Your task to perform on an android device: turn off sleep mode Image 0: 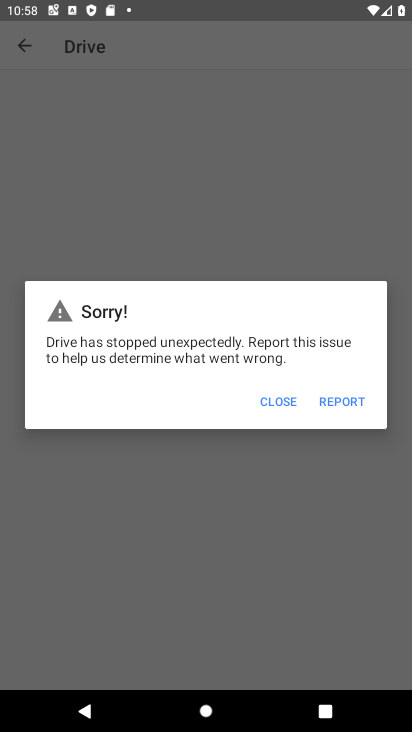
Step 0: press home button
Your task to perform on an android device: turn off sleep mode Image 1: 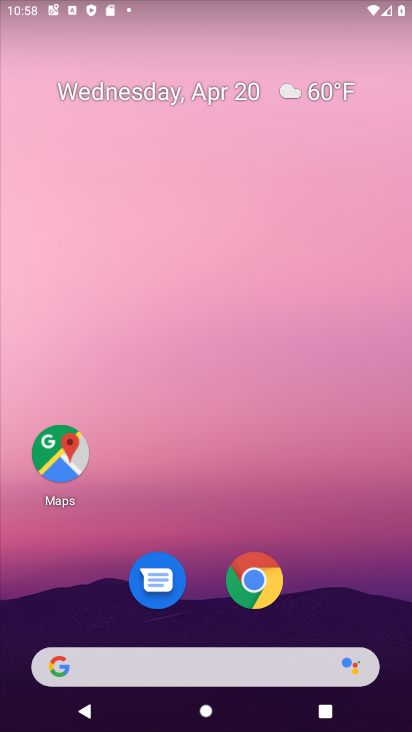
Step 1: drag from (175, 657) to (134, 244)
Your task to perform on an android device: turn off sleep mode Image 2: 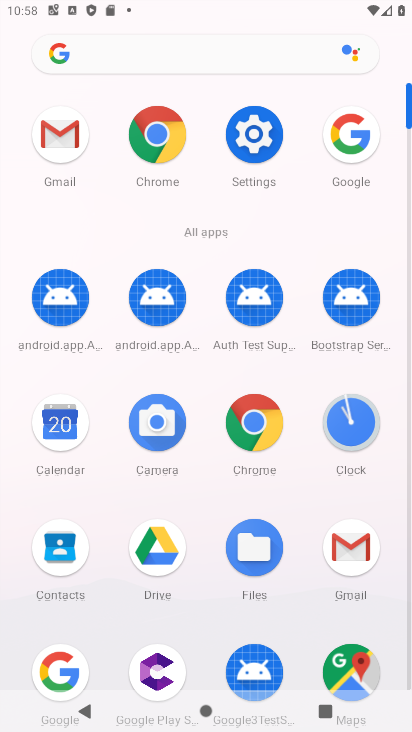
Step 2: click (265, 133)
Your task to perform on an android device: turn off sleep mode Image 3: 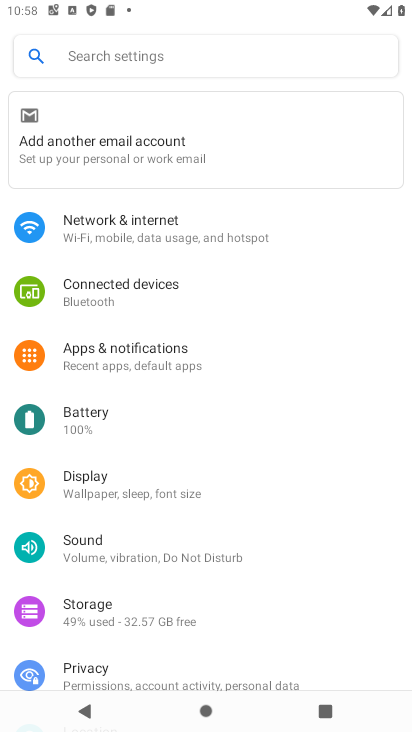
Step 3: click (107, 482)
Your task to perform on an android device: turn off sleep mode Image 4: 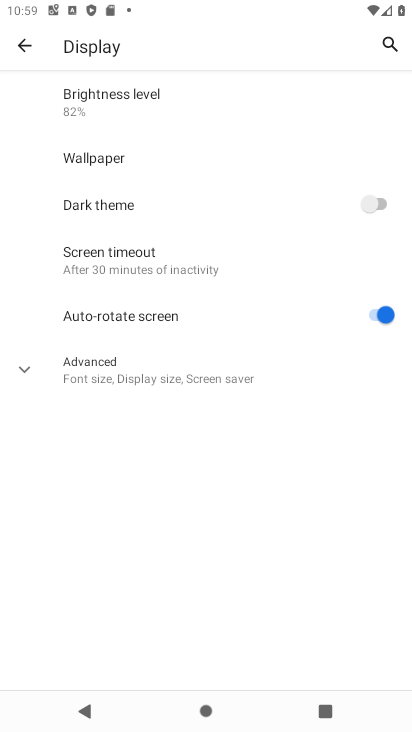
Step 4: click (116, 374)
Your task to perform on an android device: turn off sleep mode Image 5: 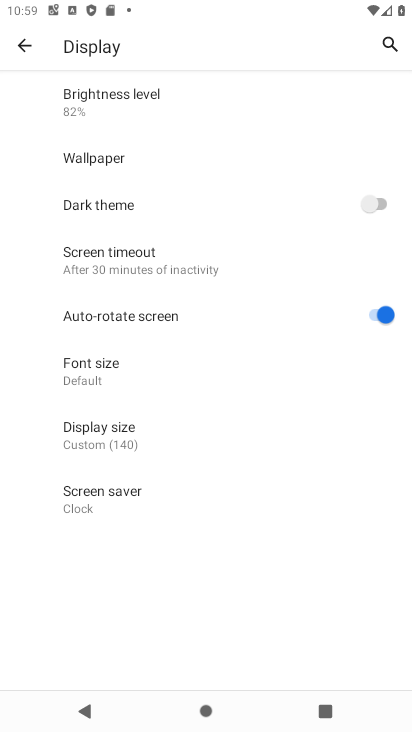
Step 5: task complete